Your task to perform on an android device: Show me popular games on the Play Store Image 0: 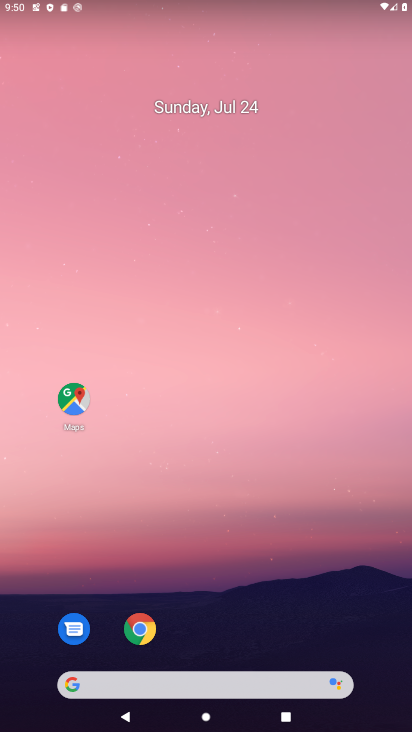
Step 0: drag from (240, 655) to (222, 15)
Your task to perform on an android device: Show me popular games on the Play Store Image 1: 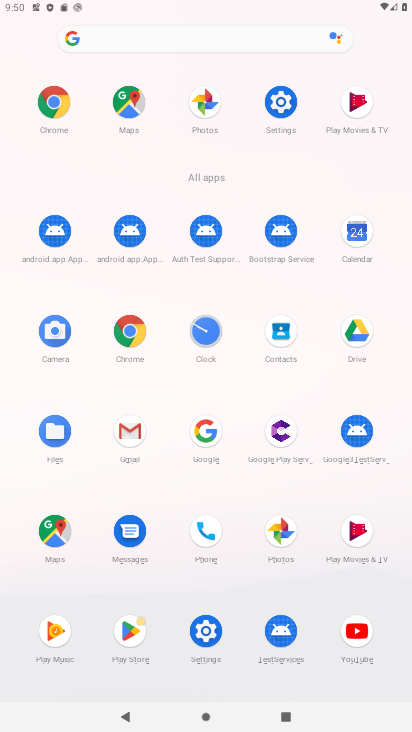
Step 1: click (140, 639)
Your task to perform on an android device: Show me popular games on the Play Store Image 2: 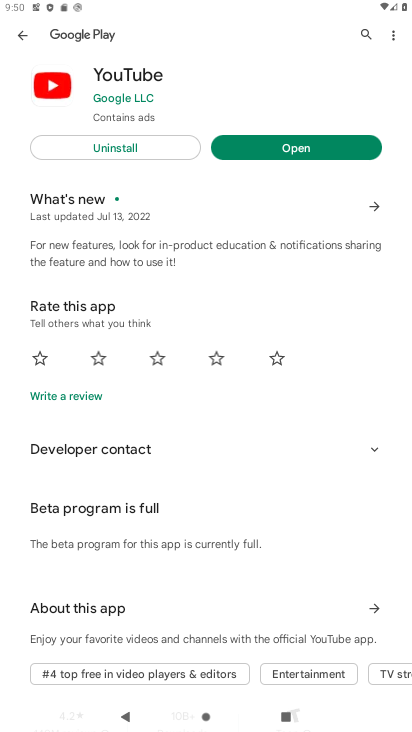
Step 2: click (18, 29)
Your task to perform on an android device: Show me popular games on the Play Store Image 3: 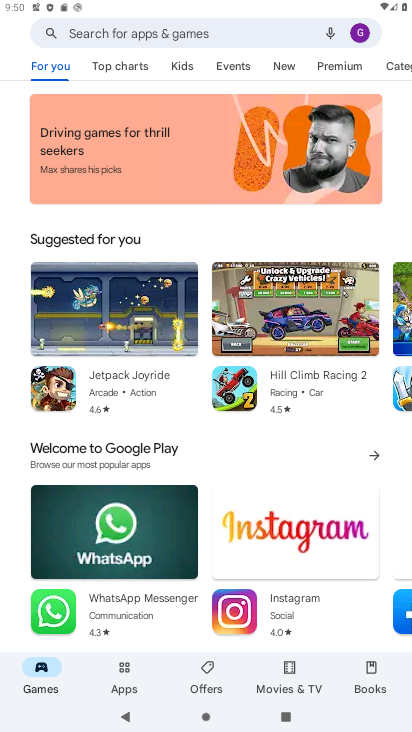
Step 3: click (134, 62)
Your task to perform on an android device: Show me popular games on the Play Store Image 4: 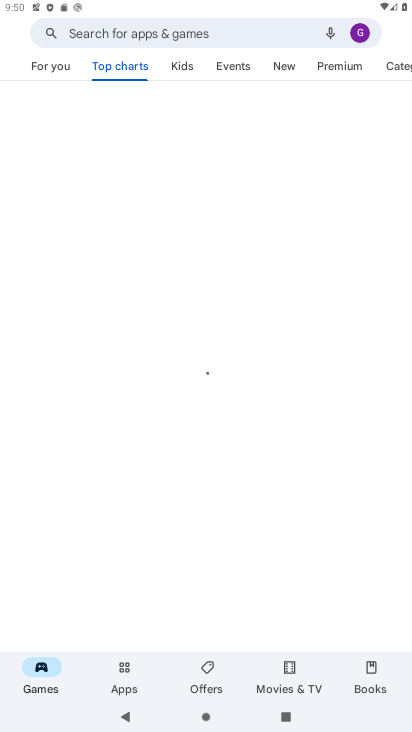
Step 4: task complete